Your task to perform on an android device: toggle pop-ups in chrome Image 0: 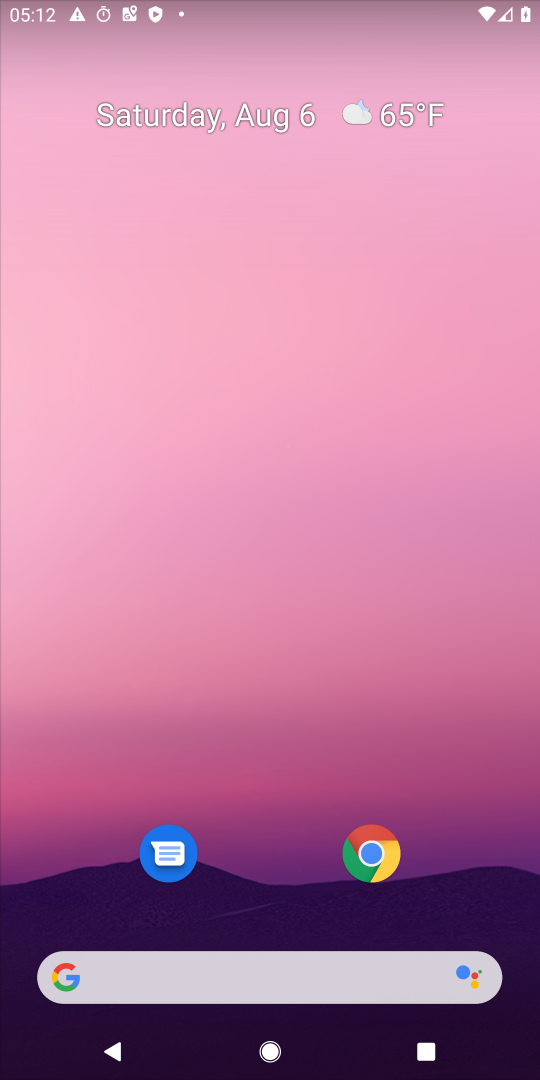
Step 0: drag from (255, 643) to (230, 180)
Your task to perform on an android device: toggle pop-ups in chrome Image 1: 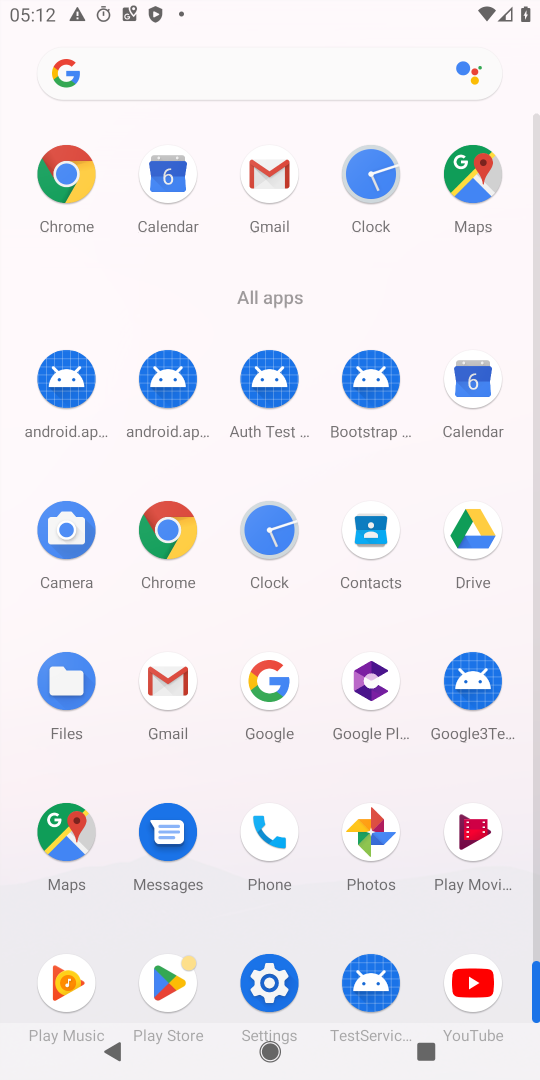
Step 1: click (171, 531)
Your task to perform on an android device: toggle pop-ups in chrome Image 2: 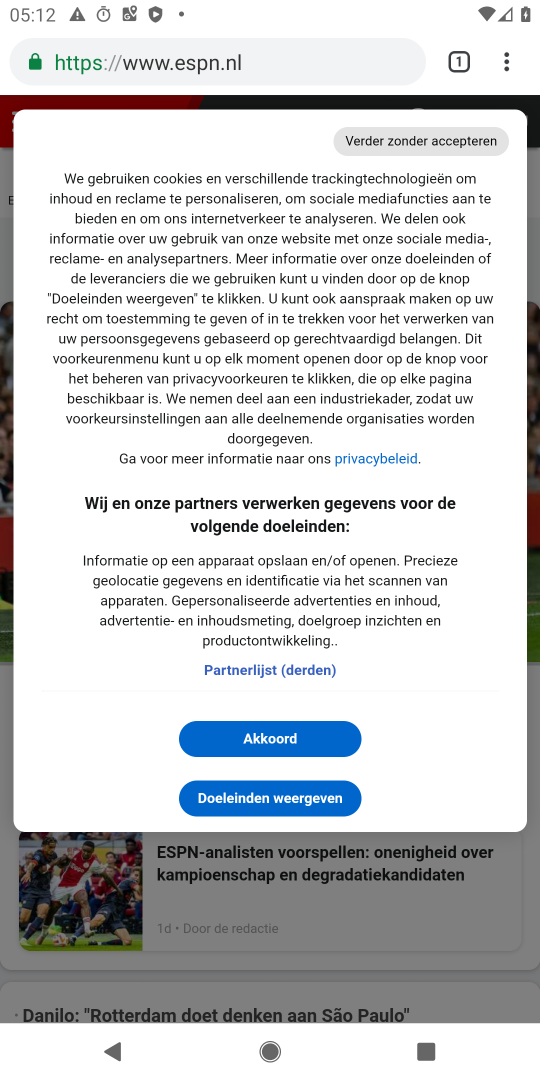
Step 2: drag from (518, 53) to (284, 739)
Your task to perform on an android device: toggle pop-ups in chrome Image 3: 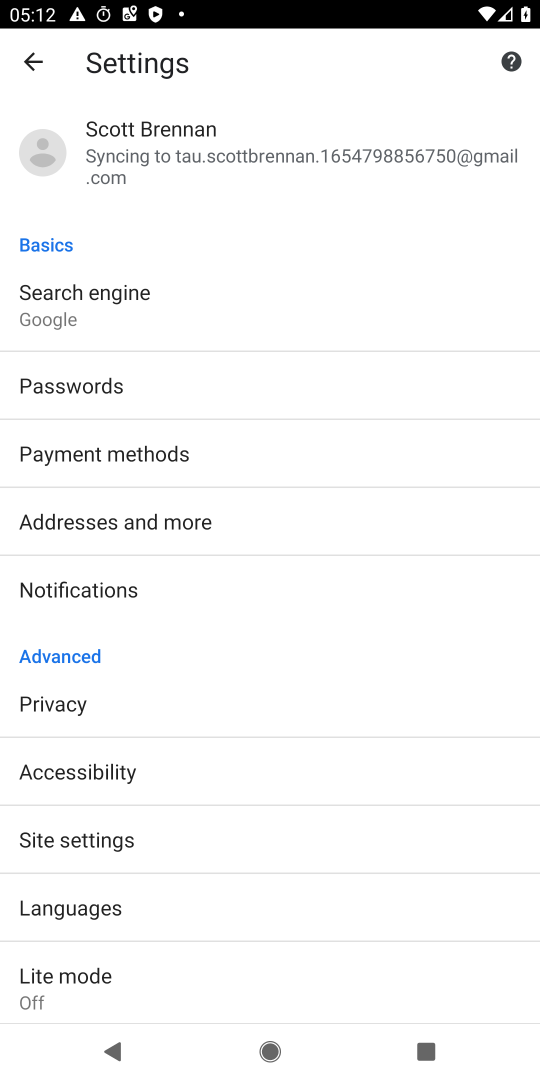
Step 3: drag from (121, 841) to (154, 467)
Your task to perform on an android device: toggle pop-ups in chrome Image 4: 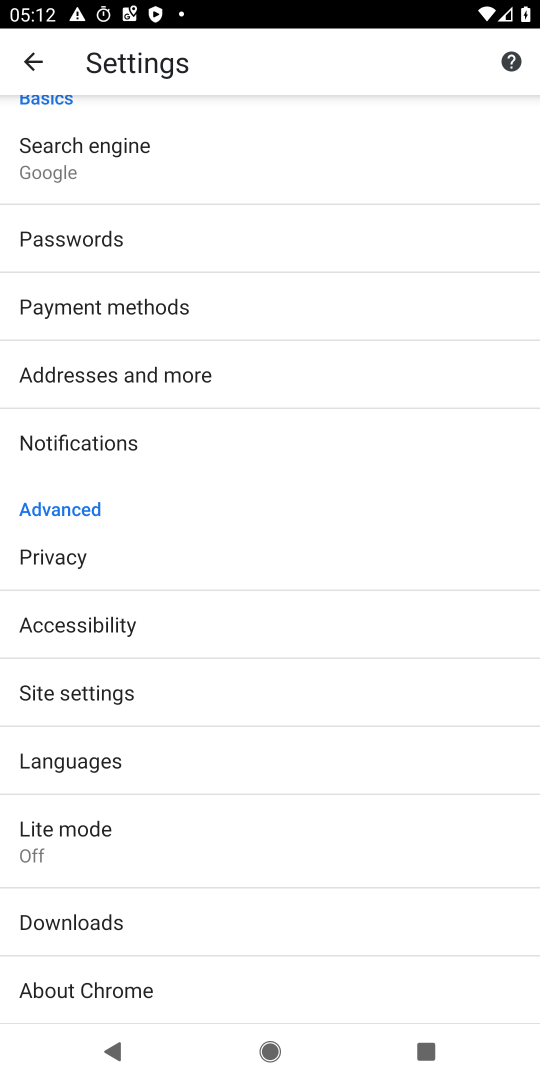
Step 4: click (99, 687)
Your task to perform on an android device: toggle pop-ups in chrome Image 5: 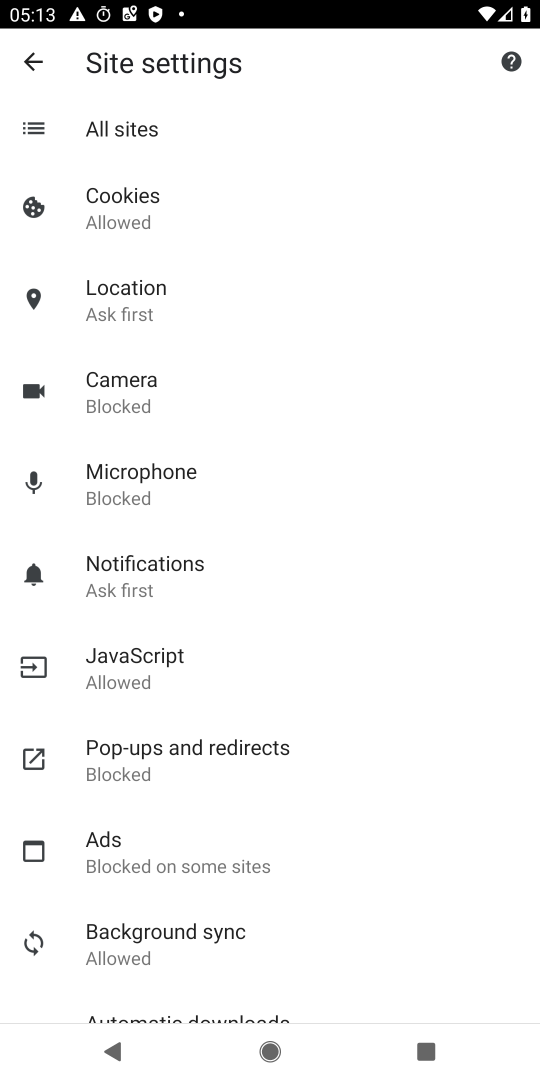
Step 5: click (165, 743)
Your task to perform on an android device: toggle pop-ups in chrome Image 6: 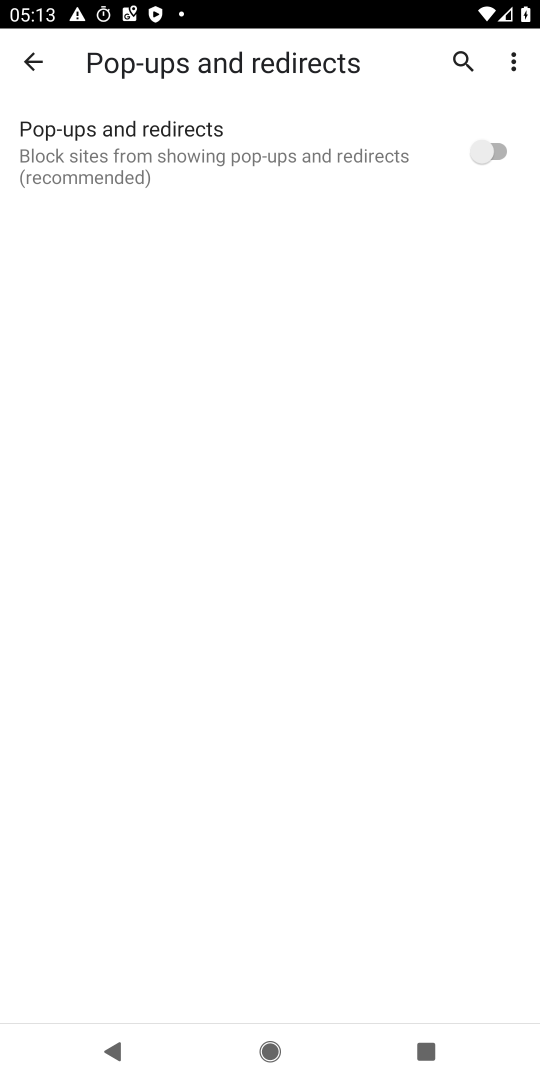
Step 6: click (486, 153)
Your task to perform on an android device: toggle pop-ups in chrome Image 7: 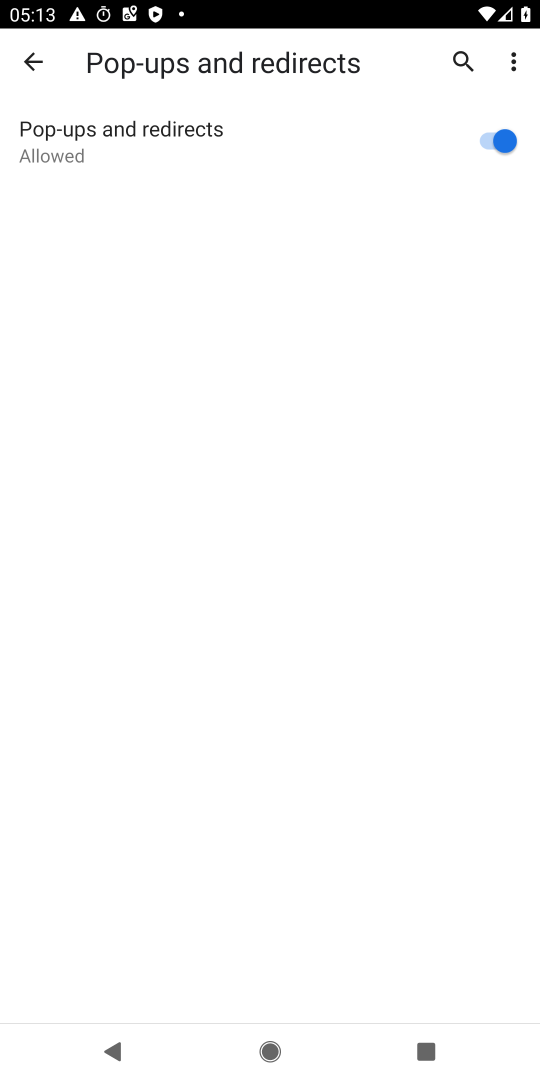
Step 7: task complete